Your task to perform on an android device: turn off wifi Image 0: 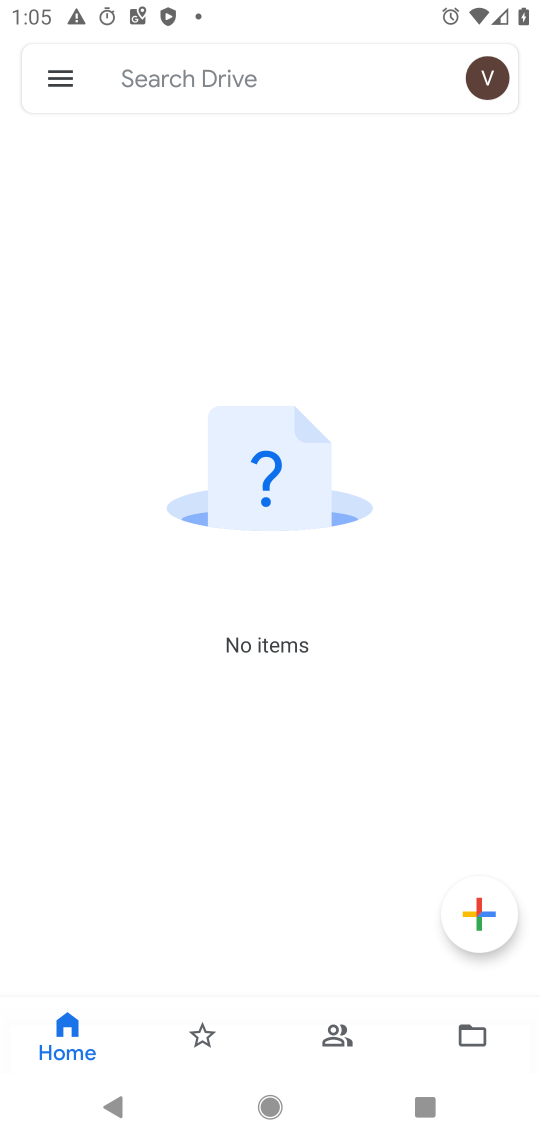
Step 0: press home button
Your task to perform on an android device: turn off wifi Image 1: 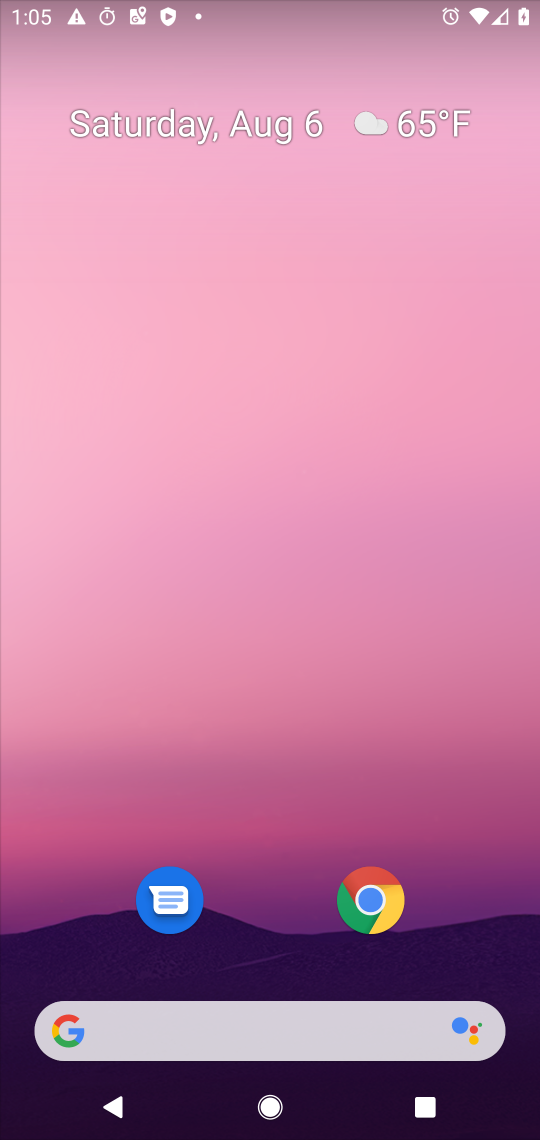
Step 1: drag from (273, 989) to (273, 82)
Your task to perform on an android device: turn off wifi Image 2: 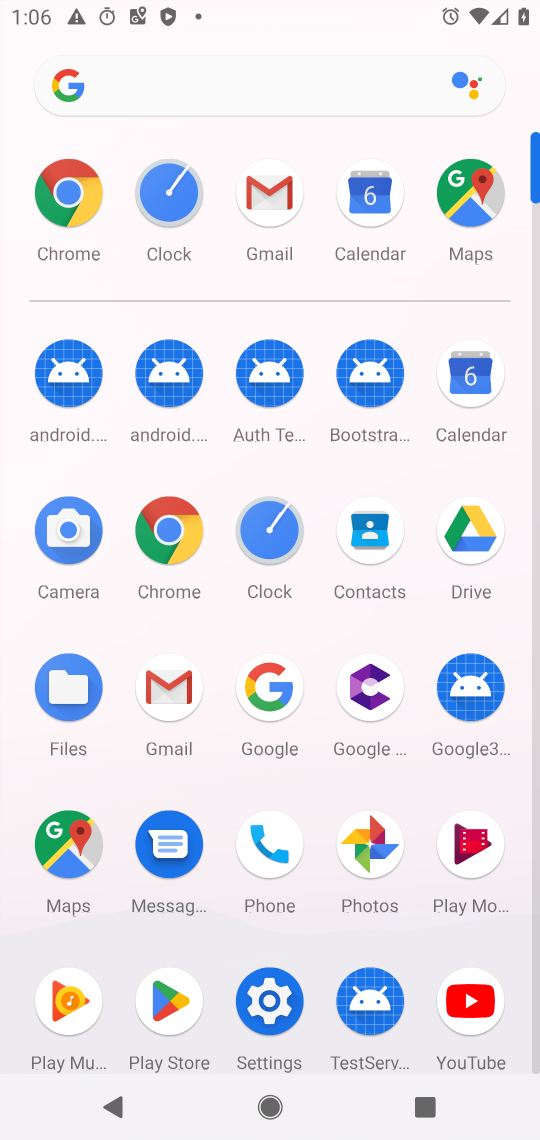
Step 2: click (272, 997)
Your task to perform on an android device: turn off wifi Image 3: 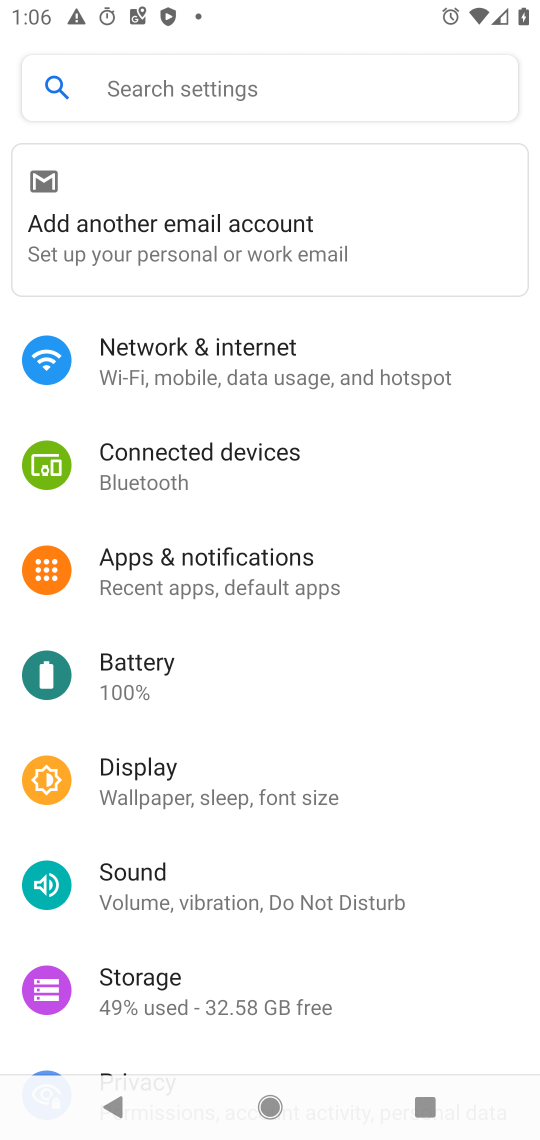
Step 3: click (171, 358)
Your task to perform on an android device: turn off wifi Image 4: 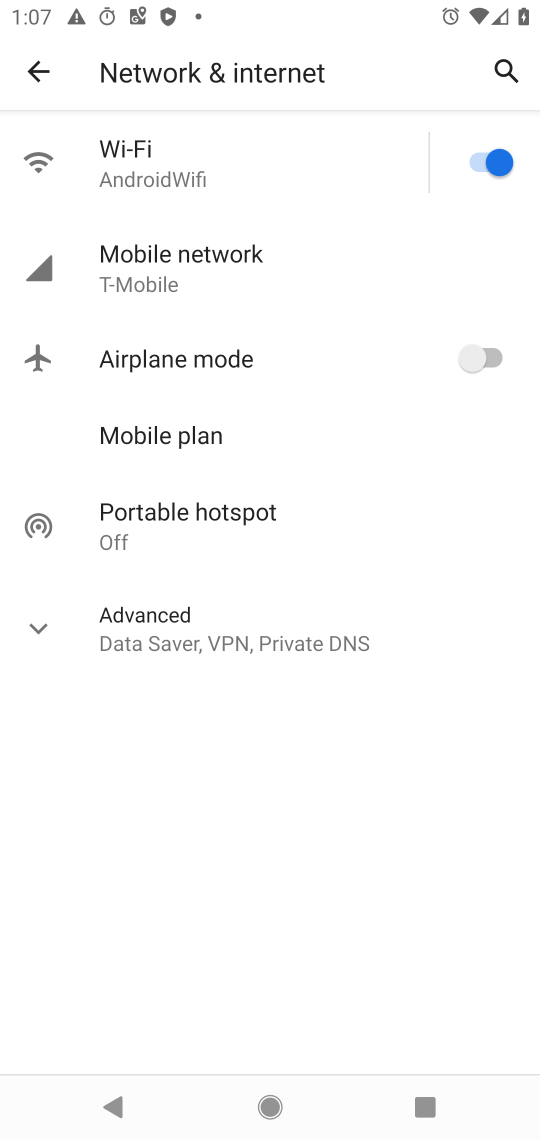
Step 4: click (488, 163)
Your task to perform on an android device: turn off wifi Image 5: 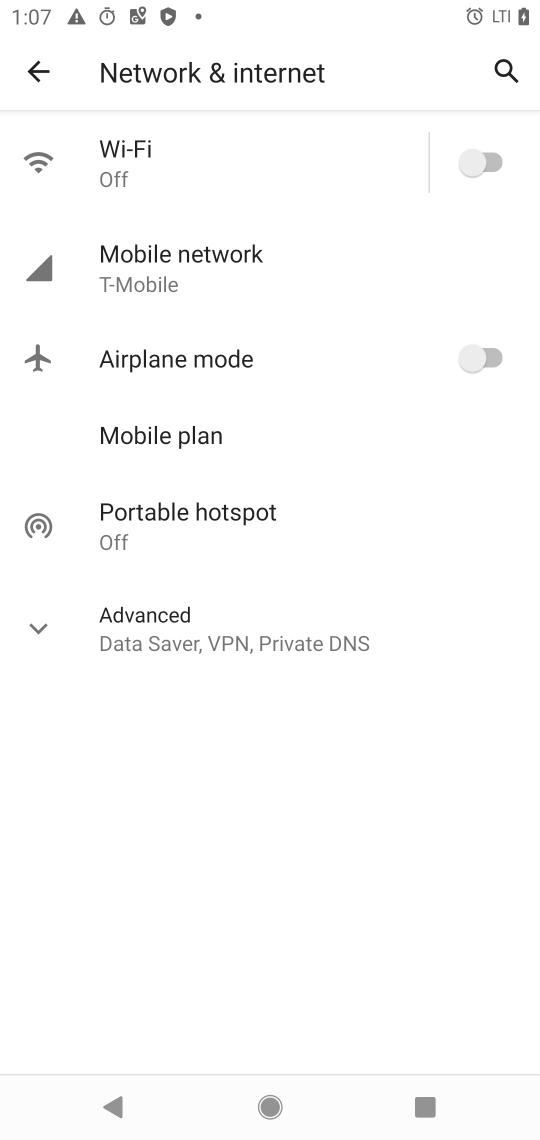
Step 5: task complete